Your task to perform on an android device: Go to eBay Image 0: 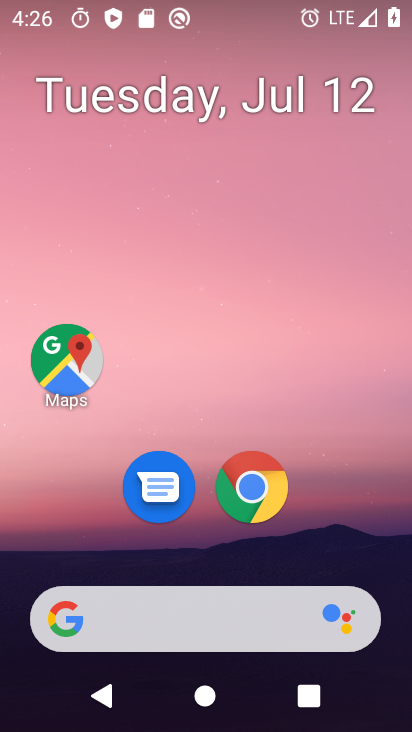
Step 0: drag from (229, 635) to (233, 325)
Your task to perform on an android device: Go to eBay Image 1: 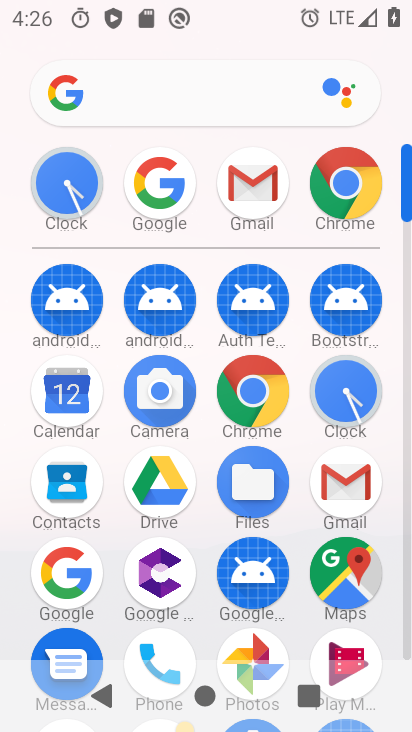
Step 1: click (355, 200)
Your task to perform on an android device: Go to eBay Image 2: 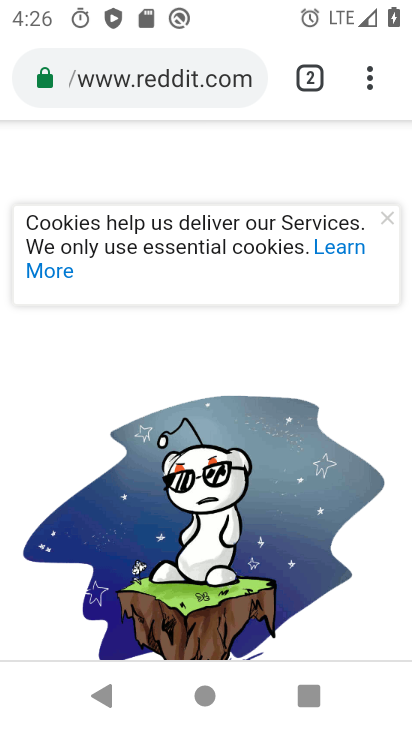
Step 2: click (223, 89)
Your task to perform on an android device: Go to eBay Image 3: 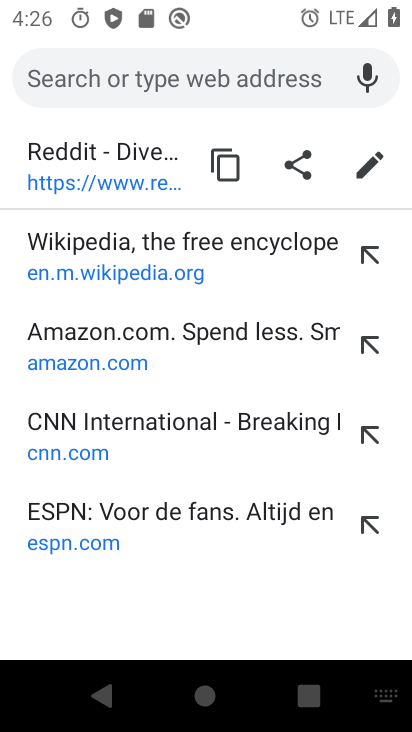
Step 3: type "ebay"
Your task to perform on an android device: Go to eBay Image 4: 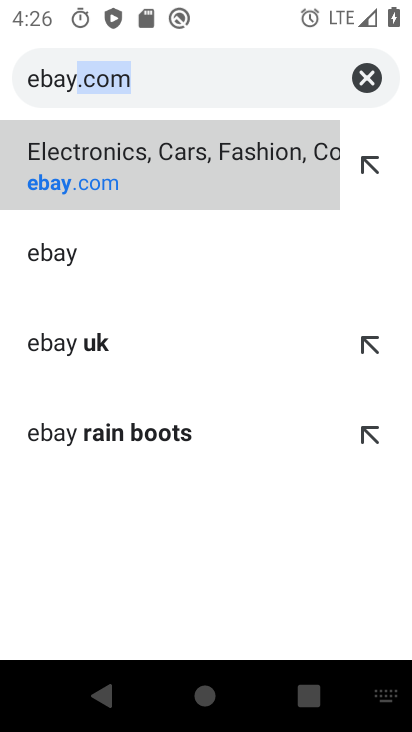
Step 4: click (190, 176)
Your task to perform on an android device: Go to eBay Image 5: 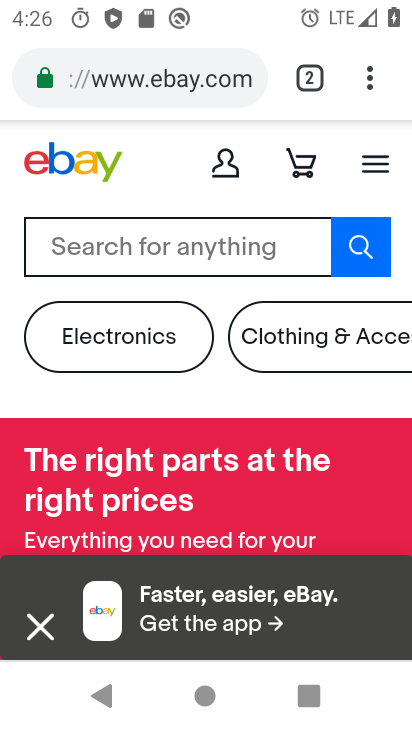
Step 5: task complete